Your task to perform on an android device: open app "Lyft - Rideshare, Bikes, Scooters & Transit" (install if not already installed), go to login, and select forgot password Image 0: 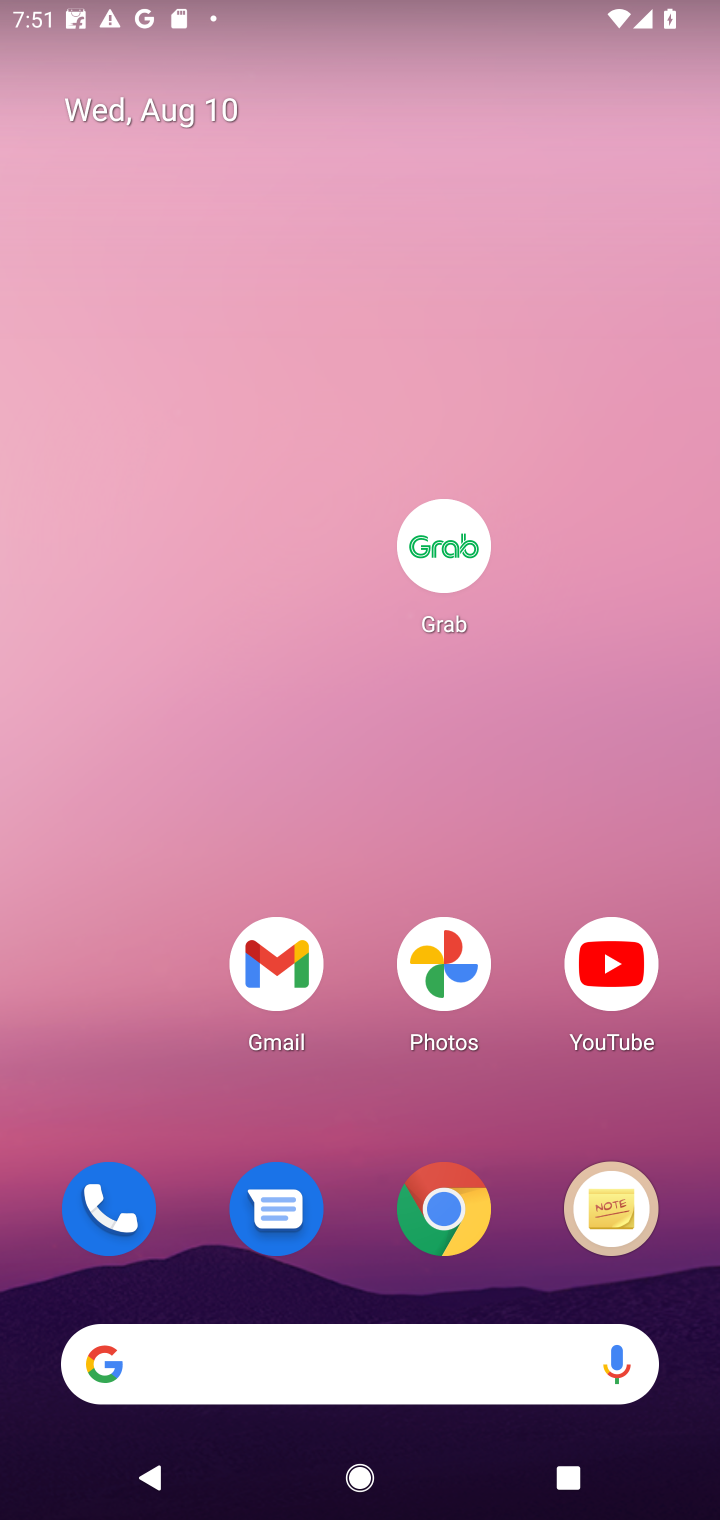
Step 0: drag from (364, 1286) to (386, 136)
Your task to perform on an android device: open app "Lyft - Rideshare, Bikes, Scooters & Transit" (install if not already installed), go to login, and select forgot password Image 1: 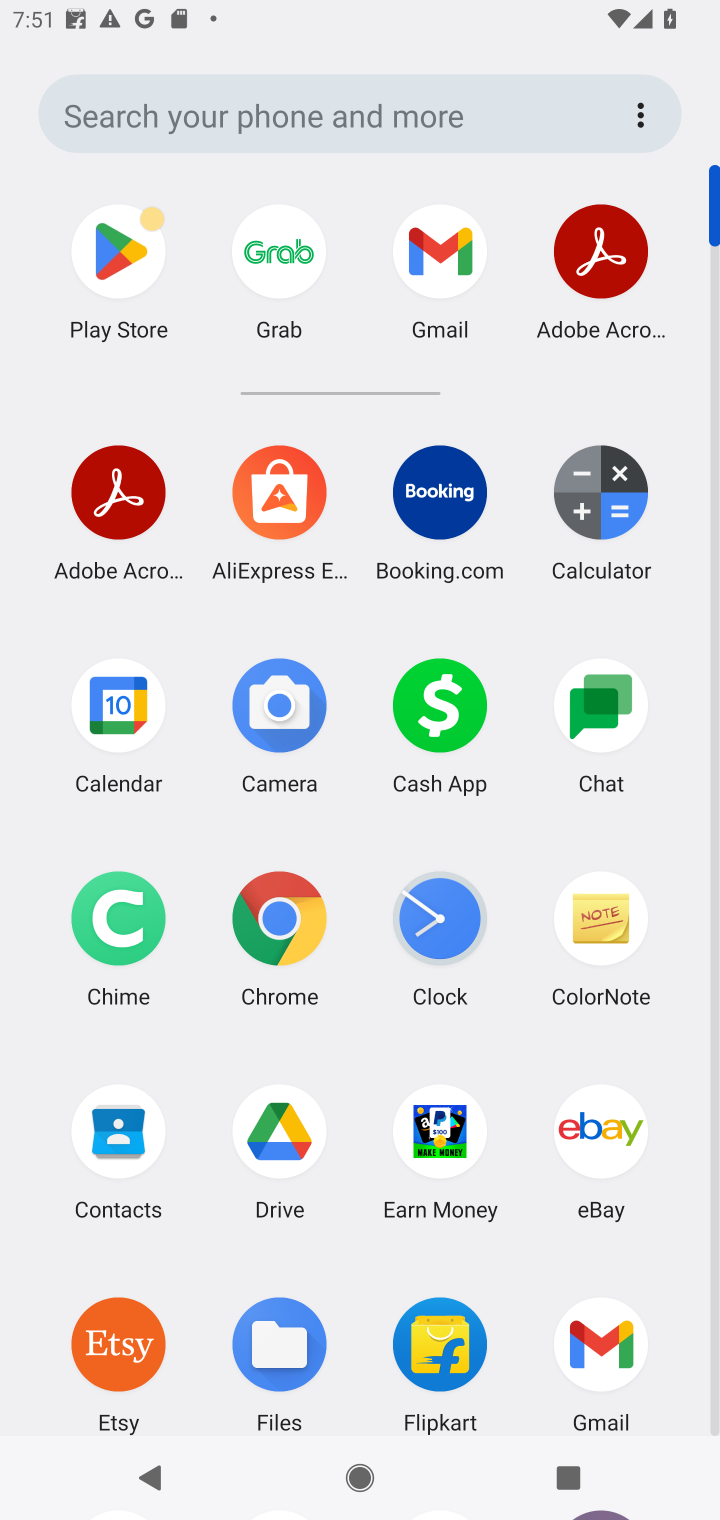
Step 1: click (83, 260)
Your task to perform on an android device: open app "Lyft - Rideshare, Bikes, Scooters & Transit" (install if not already installed), go to login, and select forgot password Image 2: 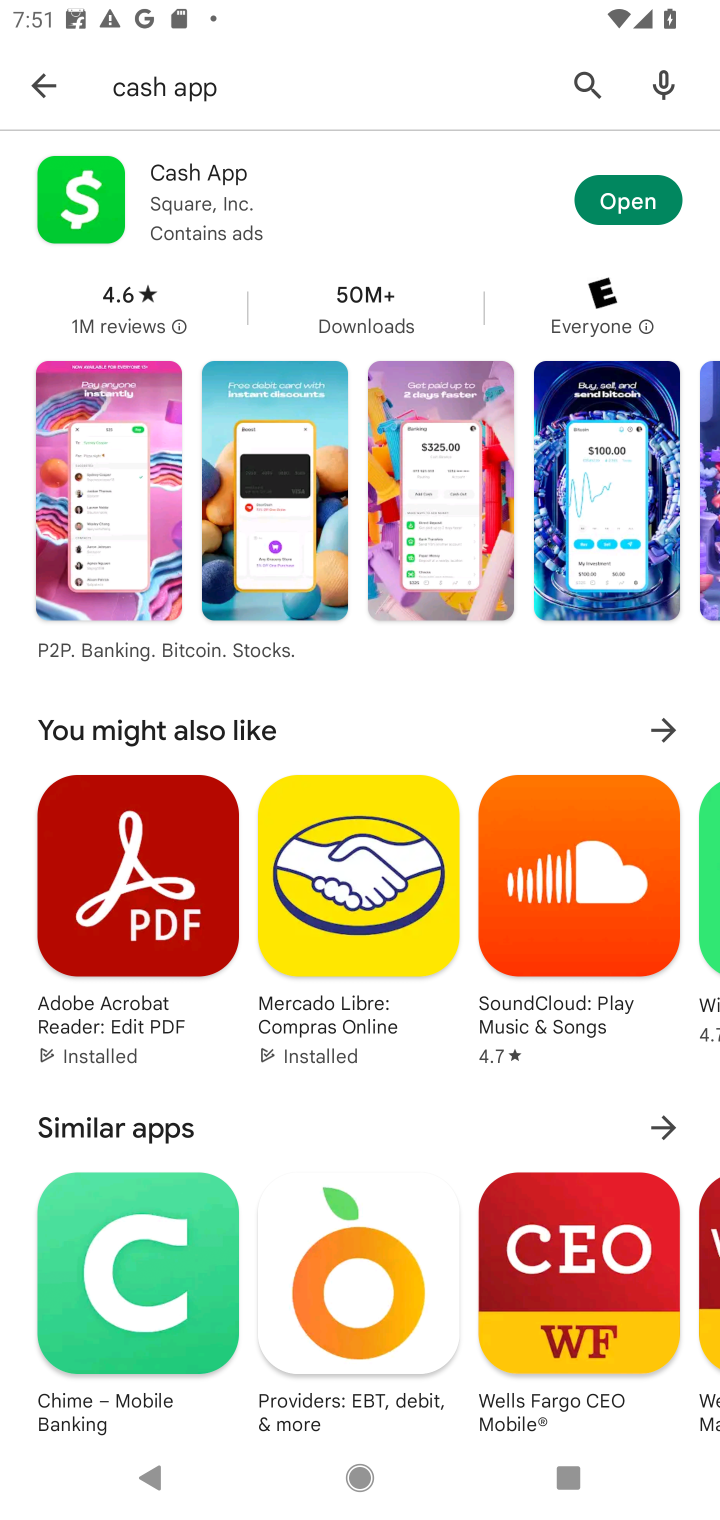
Step 2: click (603, 85)
Your task to perform on an android device: open app "Lyft - Rideshare, Bikes, Scooters & Transit" (install if not already installed), go to login, and select forgot password Image 3: 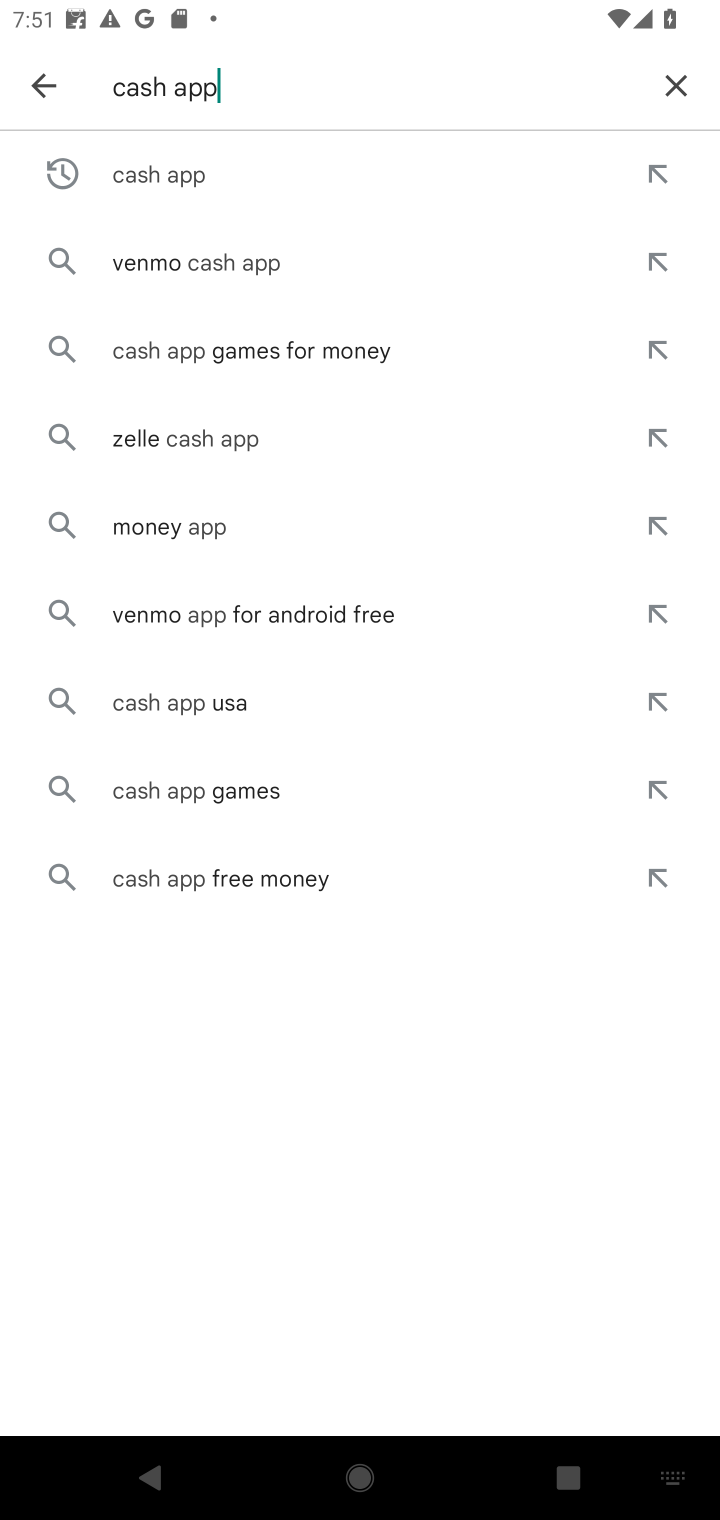
Step 3: click (687, 85)
Your task to perform on an android device: open app "Lyft - Rideshare, Bikes, Scooters & Transit" (install if not already installed), go to login, and select forgot password Image 4: 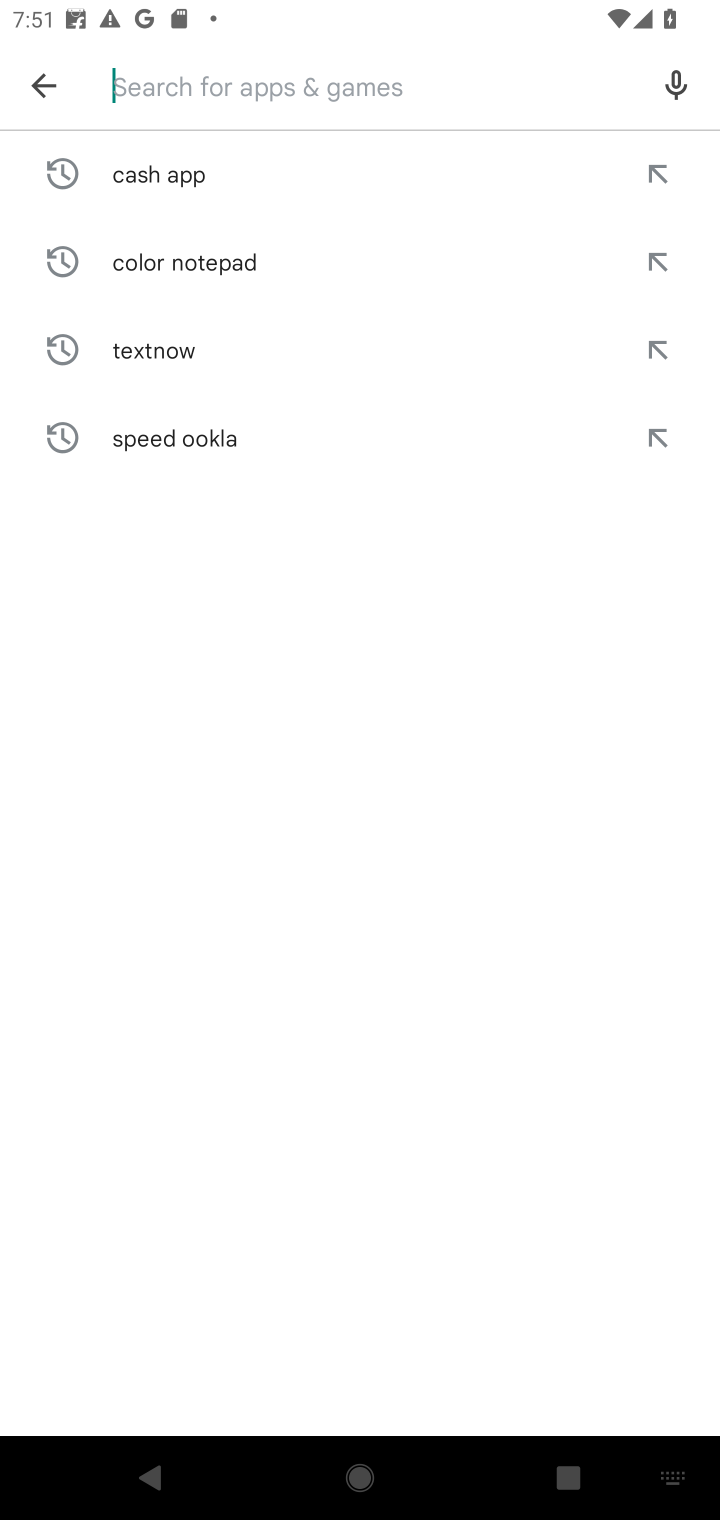
Step 4: type "lyst"
Your task to perform on an android device: open app "Lyft - Rideshare, Bikes, Scooters & Transit" (install if not already installed), go to login, and select forgot password Image 5: 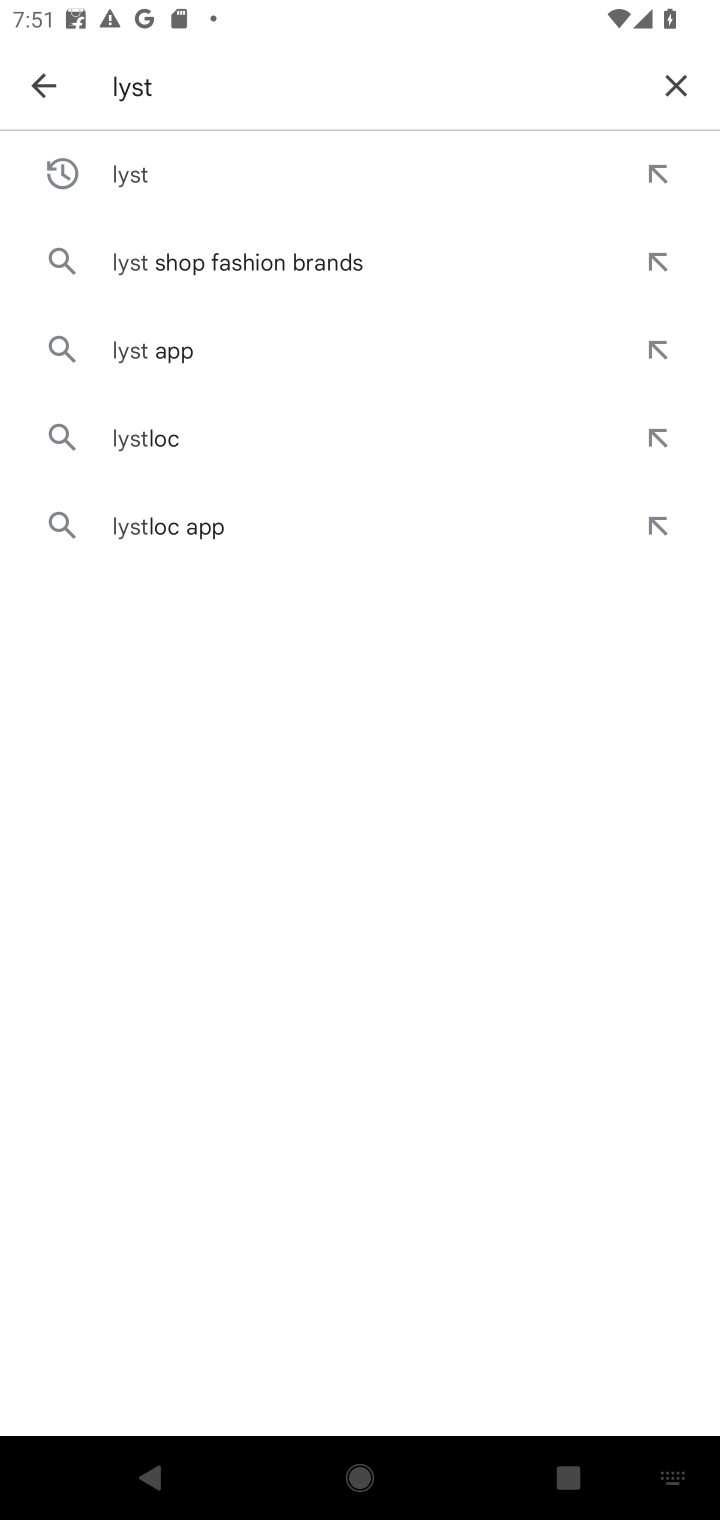
Step 5: click (124, 206)
Your task to perform on an android device: open app "Lyft - Rideshare, Bikes, Scooters & Transit" (install if not already installed), go to login, and select forgot password Image 6: 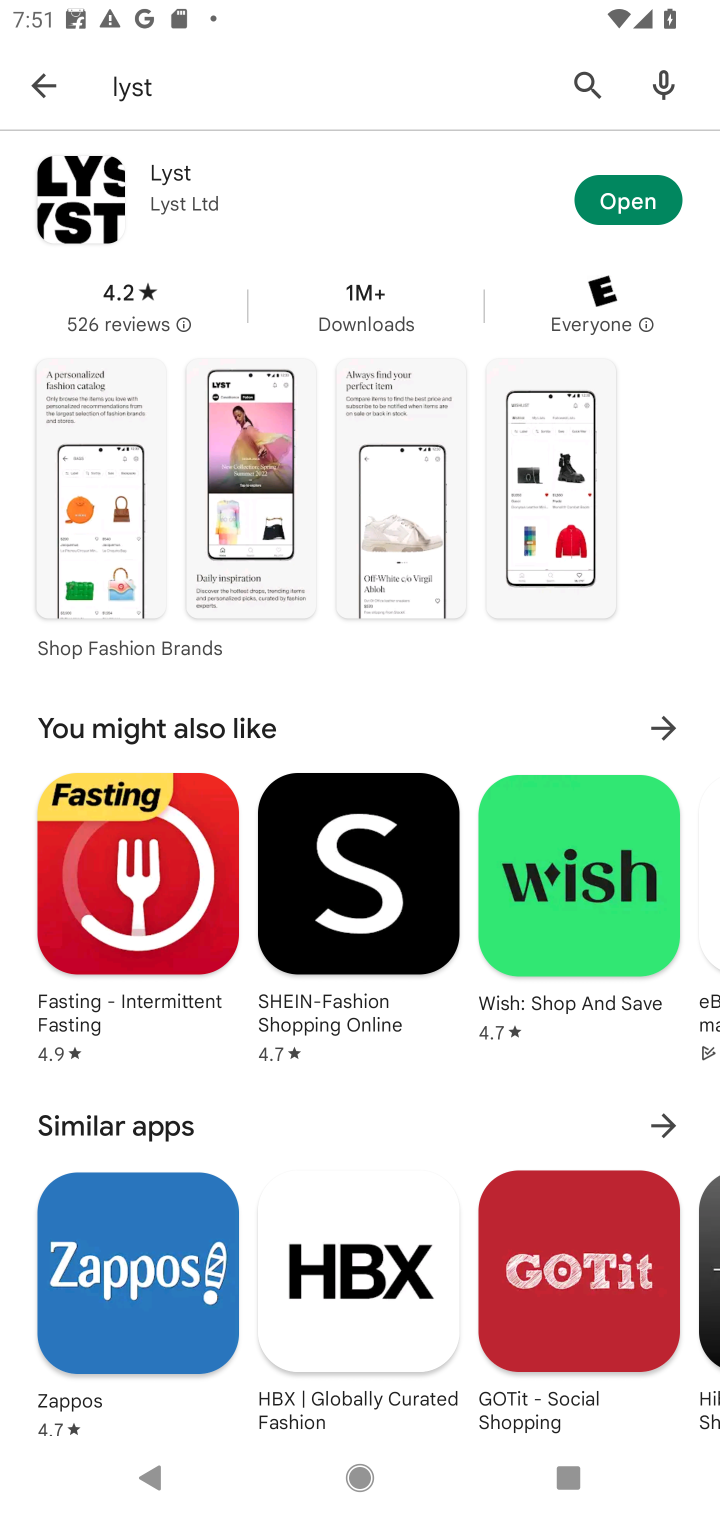
Step 6: click (648, 195)
Your task to perform on an android device: open app "Lyft - Rideshare, Bikes, Scooters & Transit" (install if not already installed), go to login, and select forgot password Image 7: 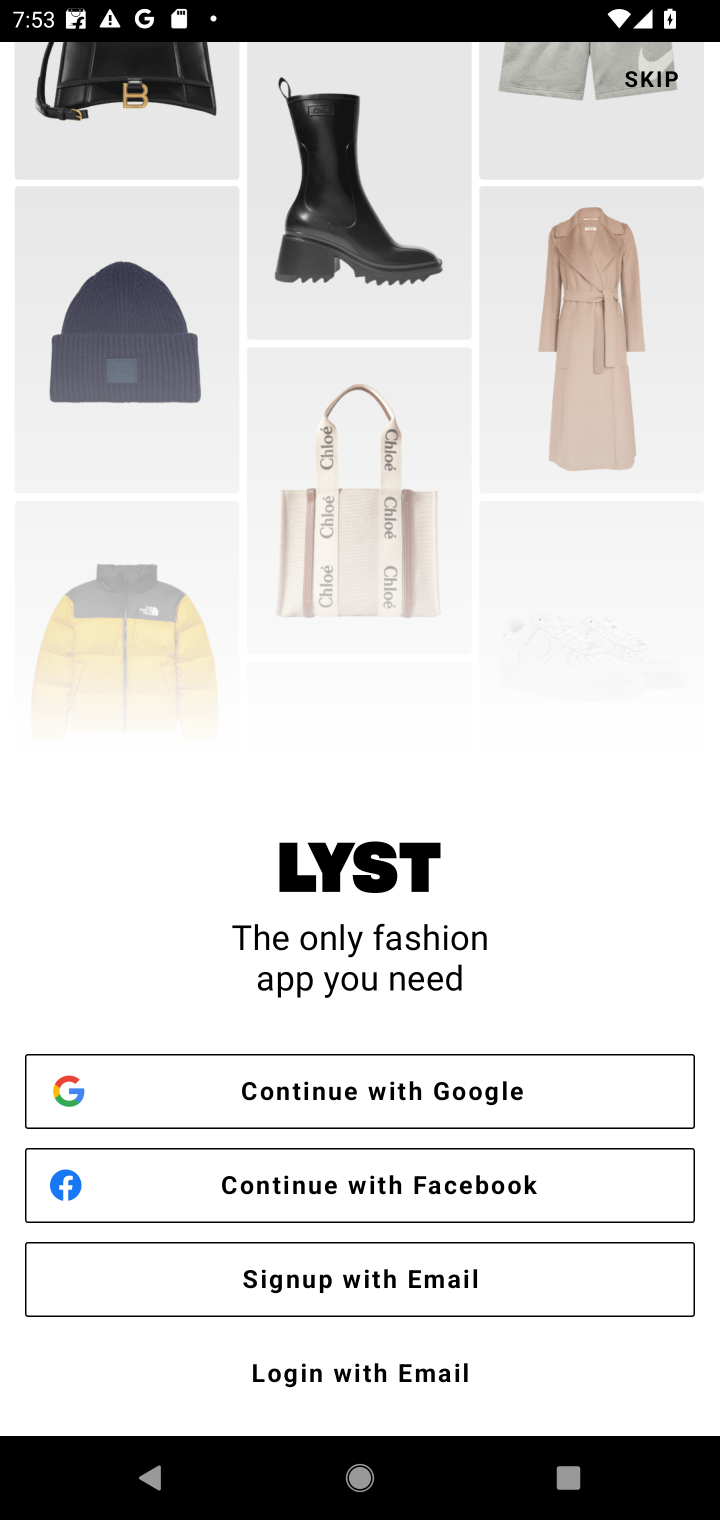
Step 7: click (365, 1358)
Your task to perform on an android device: open app "Lyft - Rideshare, Bikes, Scooters & Transit" (install if not already installed), go to login, and select forgot password Image 8: 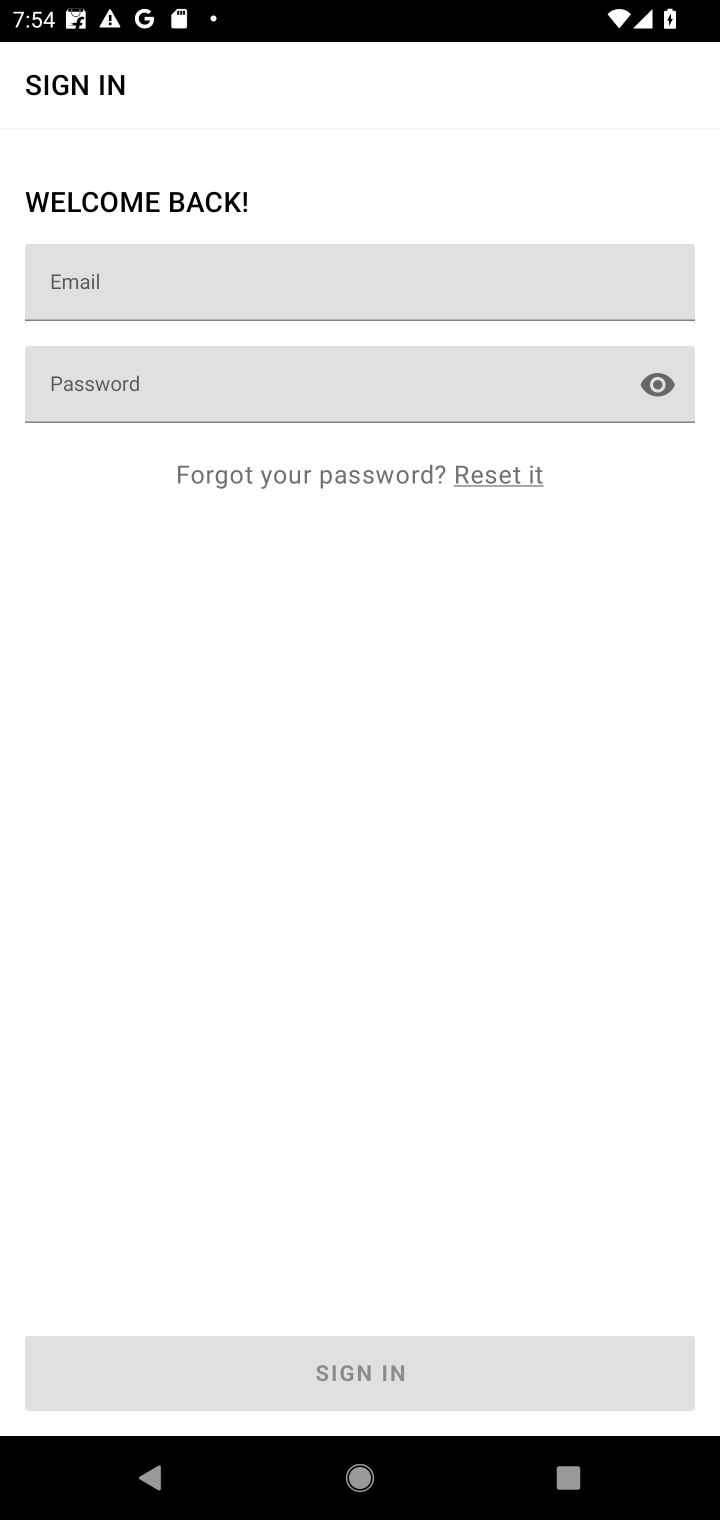
Step 8: click (348, 476)
Your task to perform on an android device: open app "Lyft - Rideshare, Bikes, Scooters & Transit" (install if not already installed), go to login, and select forgot password Image 9: 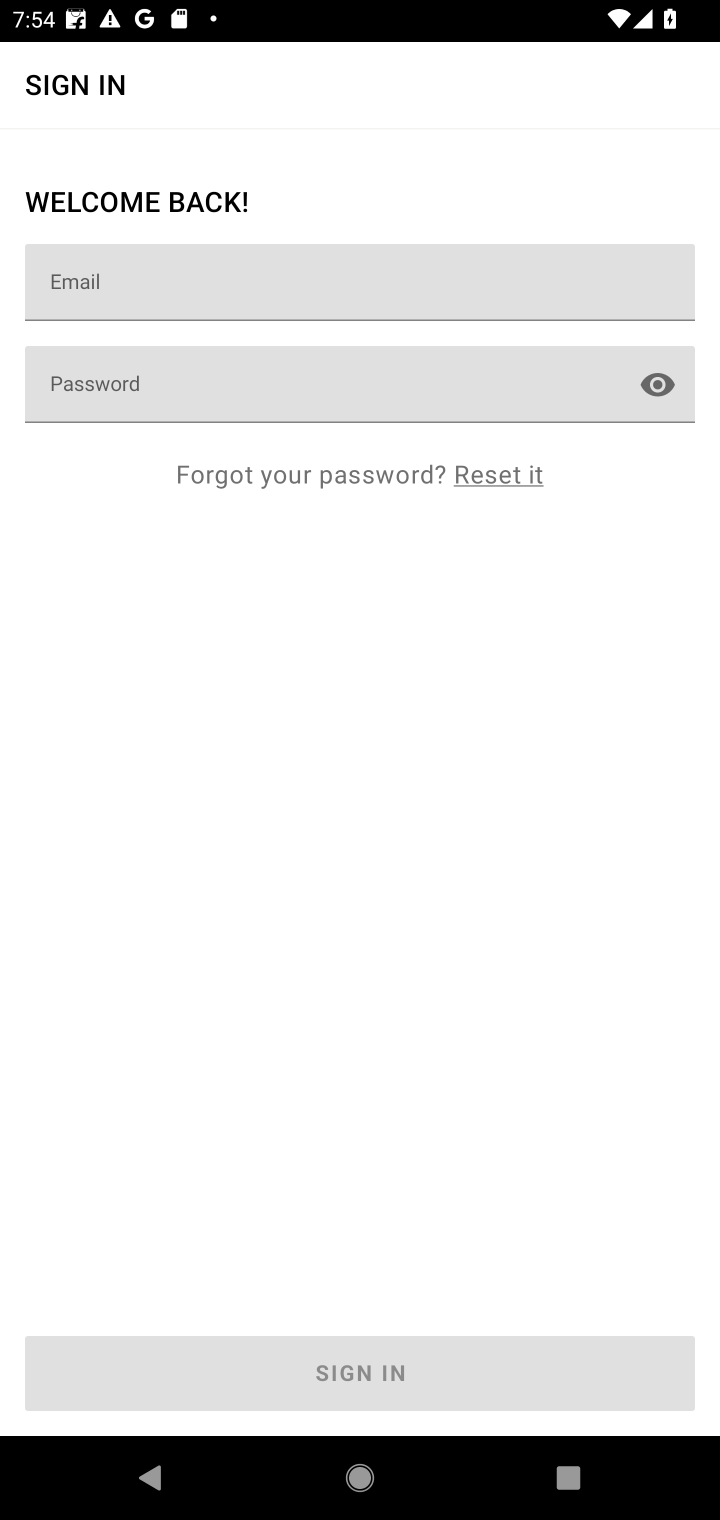
Step 9: click (468, 476)
Your task to perform on an android device: open app "Lyft - Rideshare, Bikes, Scooters & Transit" (install if not already installed), go to login, and select forgot password Image 10: 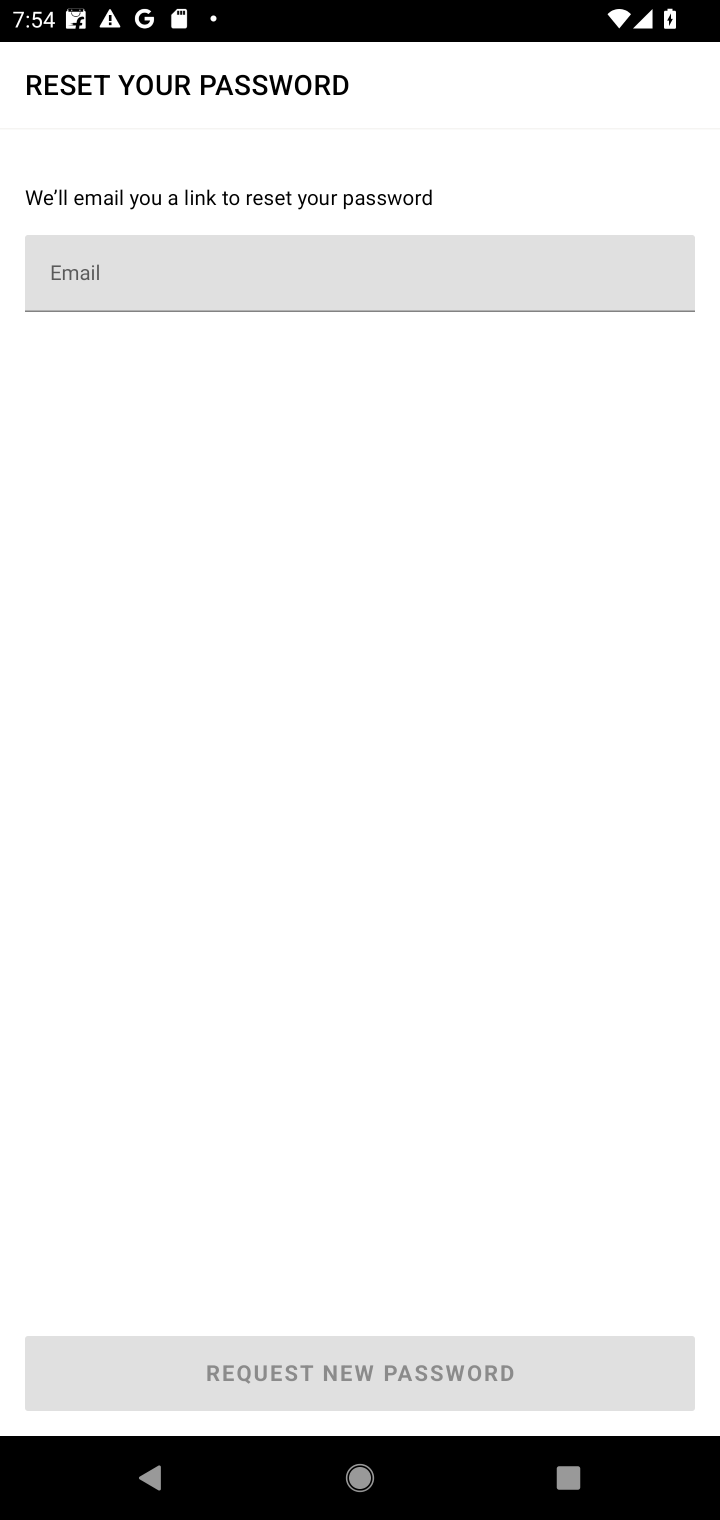
Step 10: task complete